Your task to perform on an android device: change the upload size in google photos Image 0: 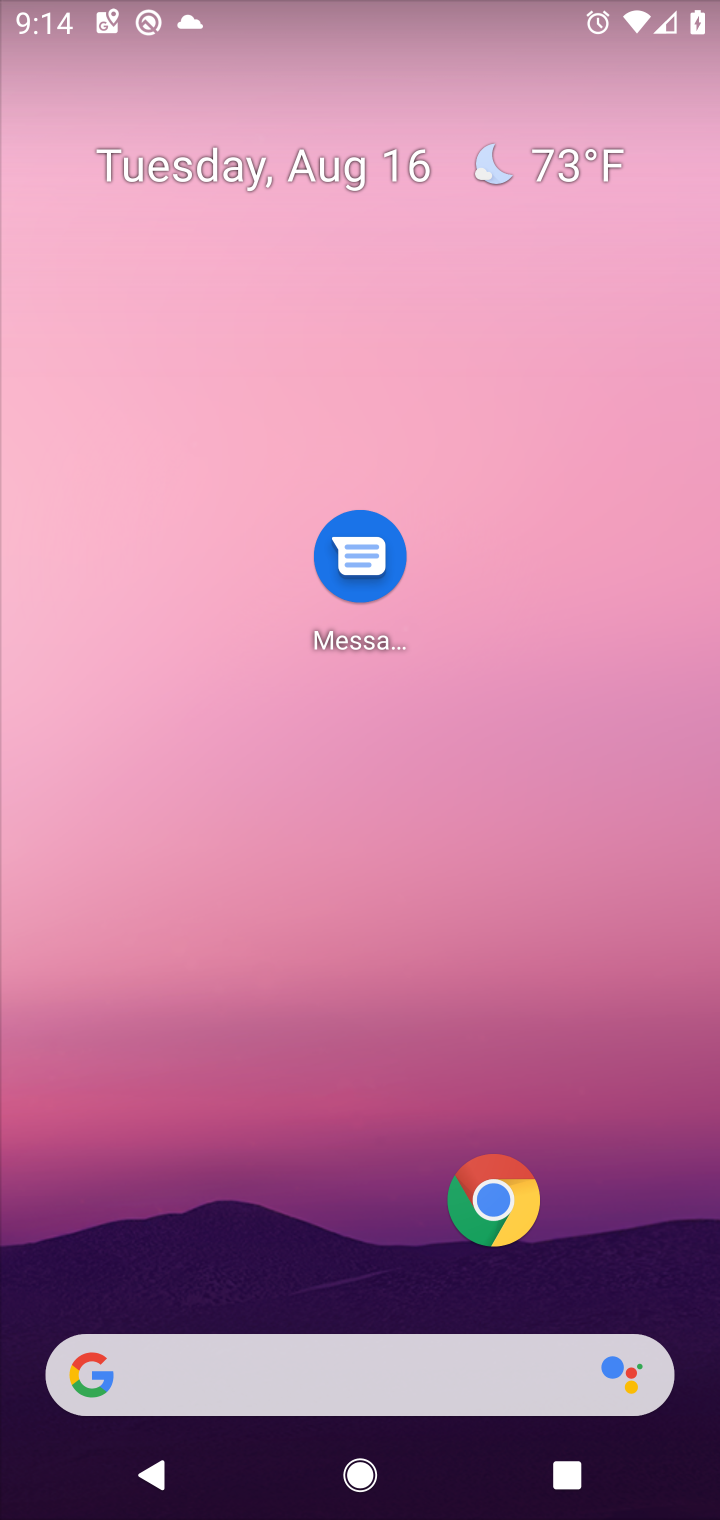
Step 0: drag from (31, 1462) to (241, 411)
Your task to perform on an android device: change the upload size in google photos Image 1: 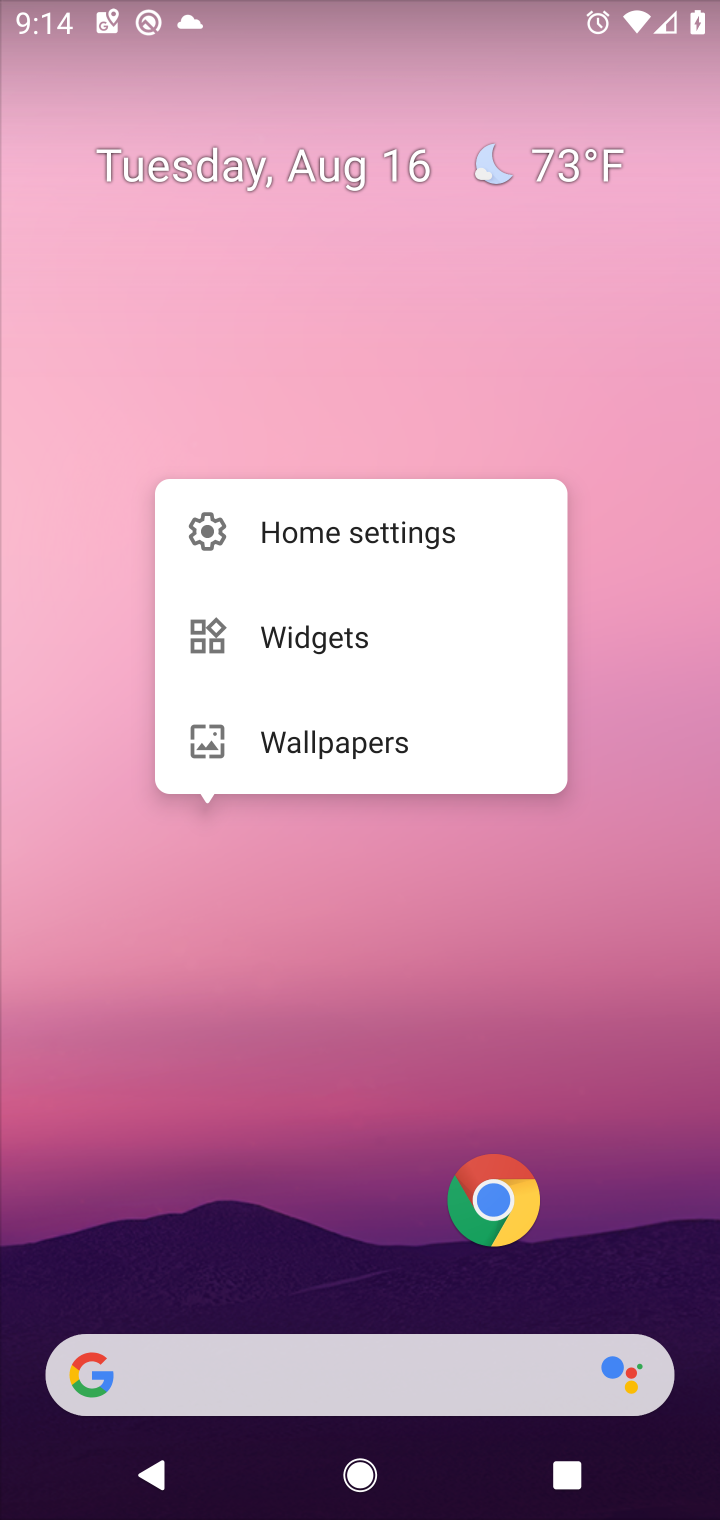
Step 1: click (70, 1127)
Your task to perform on an android device: change the upload size in google photos Image 2: 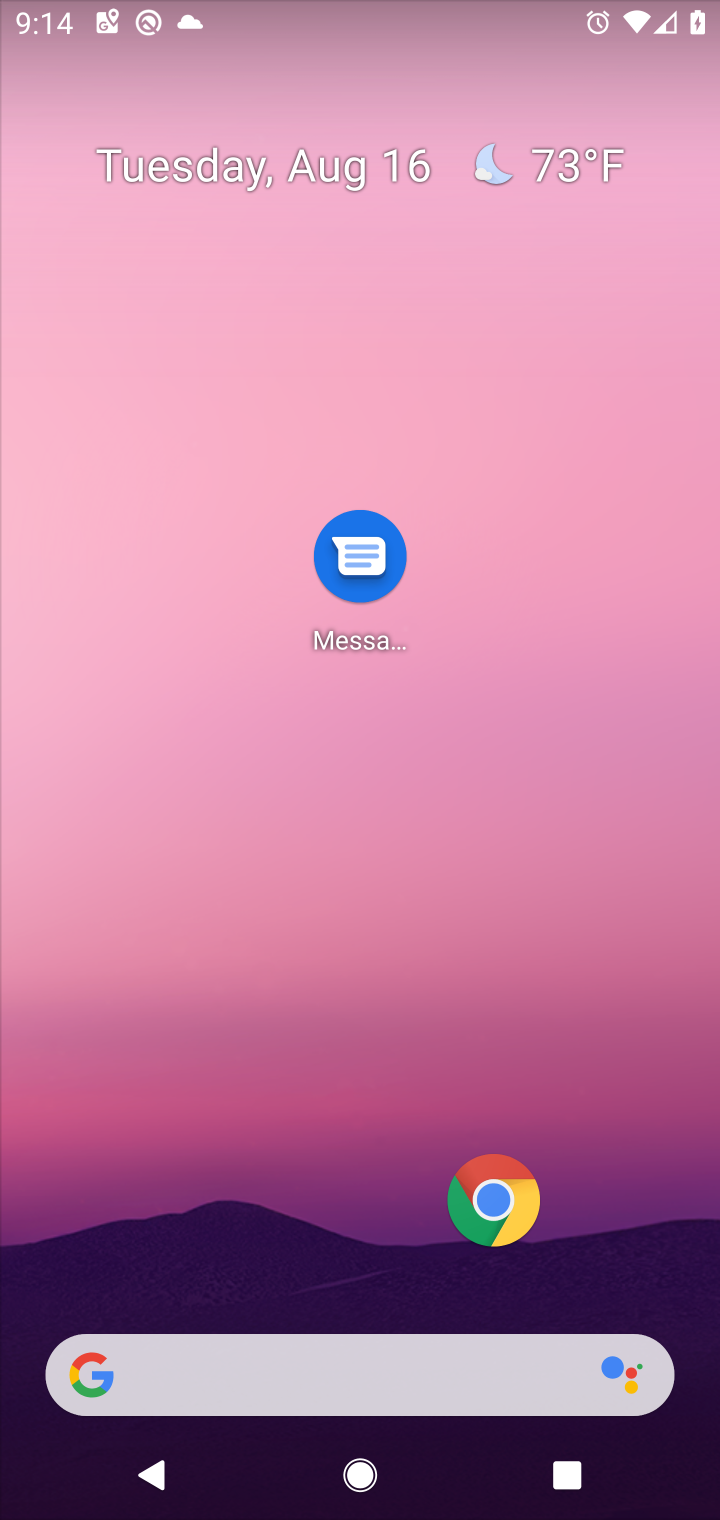
Step 2: drag from (51, 1467) to (396, 260)
Your task to perform on an android device: change the upload size in google photos Image 3: 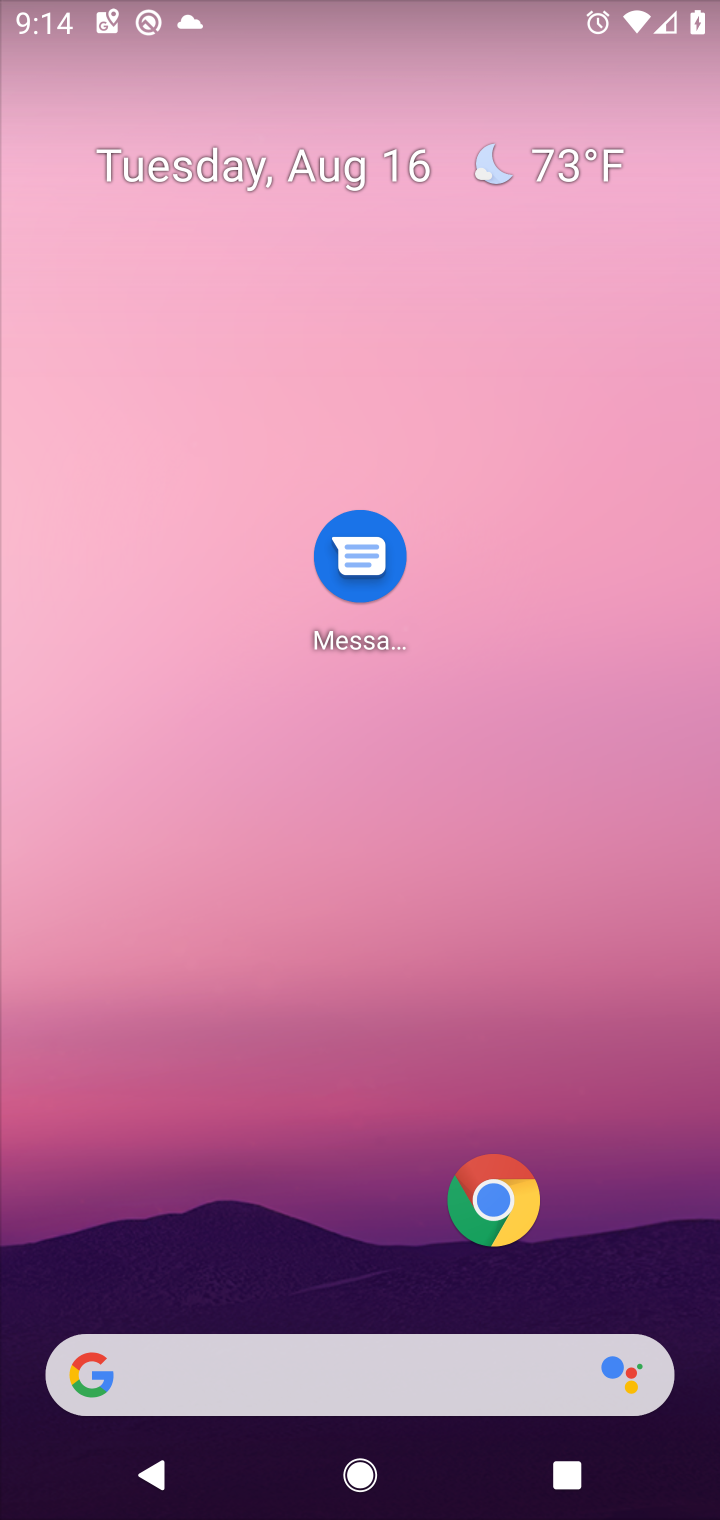
Step 3: drag from (61, 1449) to (355, 390)
Your task to perform on an android device: change the upload size in google photos Image 4: 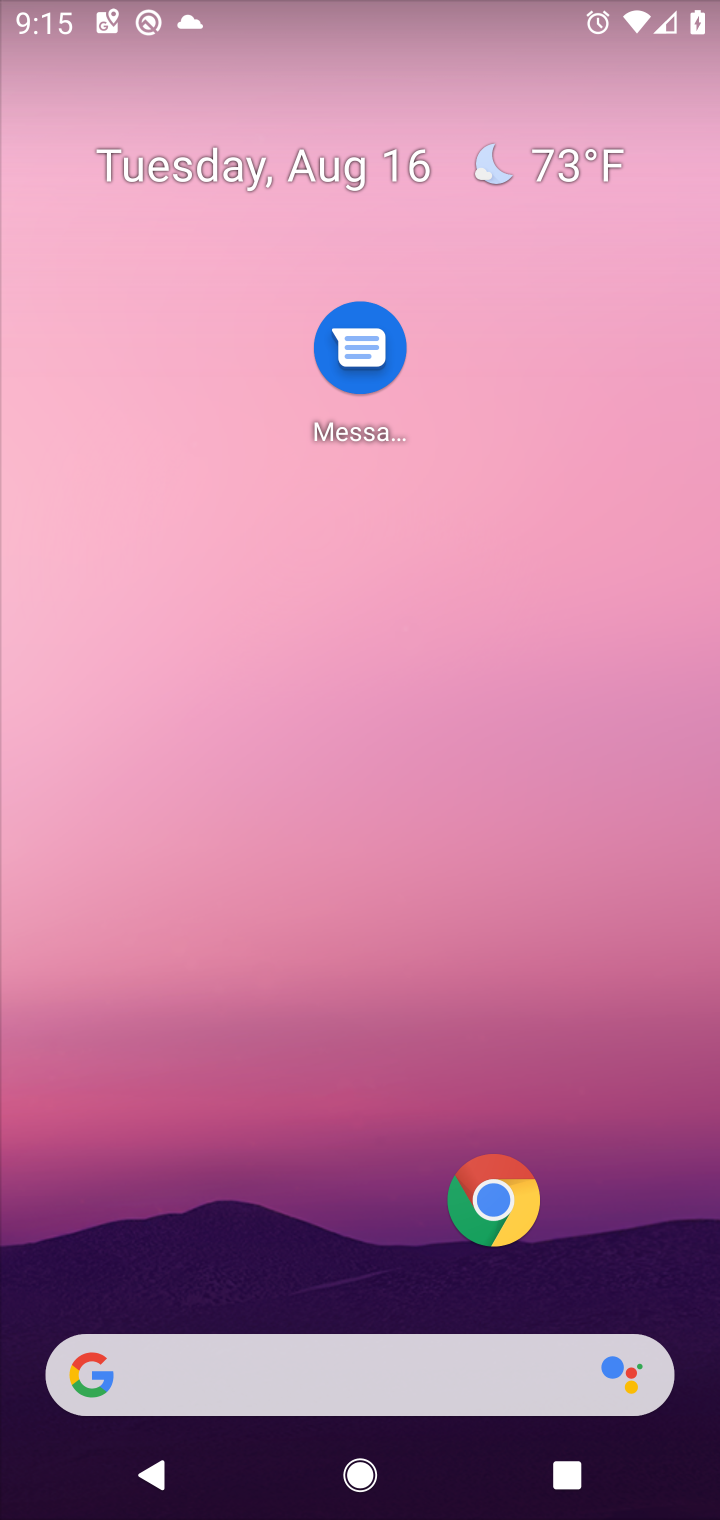
Step 4: drag from (68, 1425) to (225, 425)
Your task to perform on an android device: change the upload size in google photos Image 5: 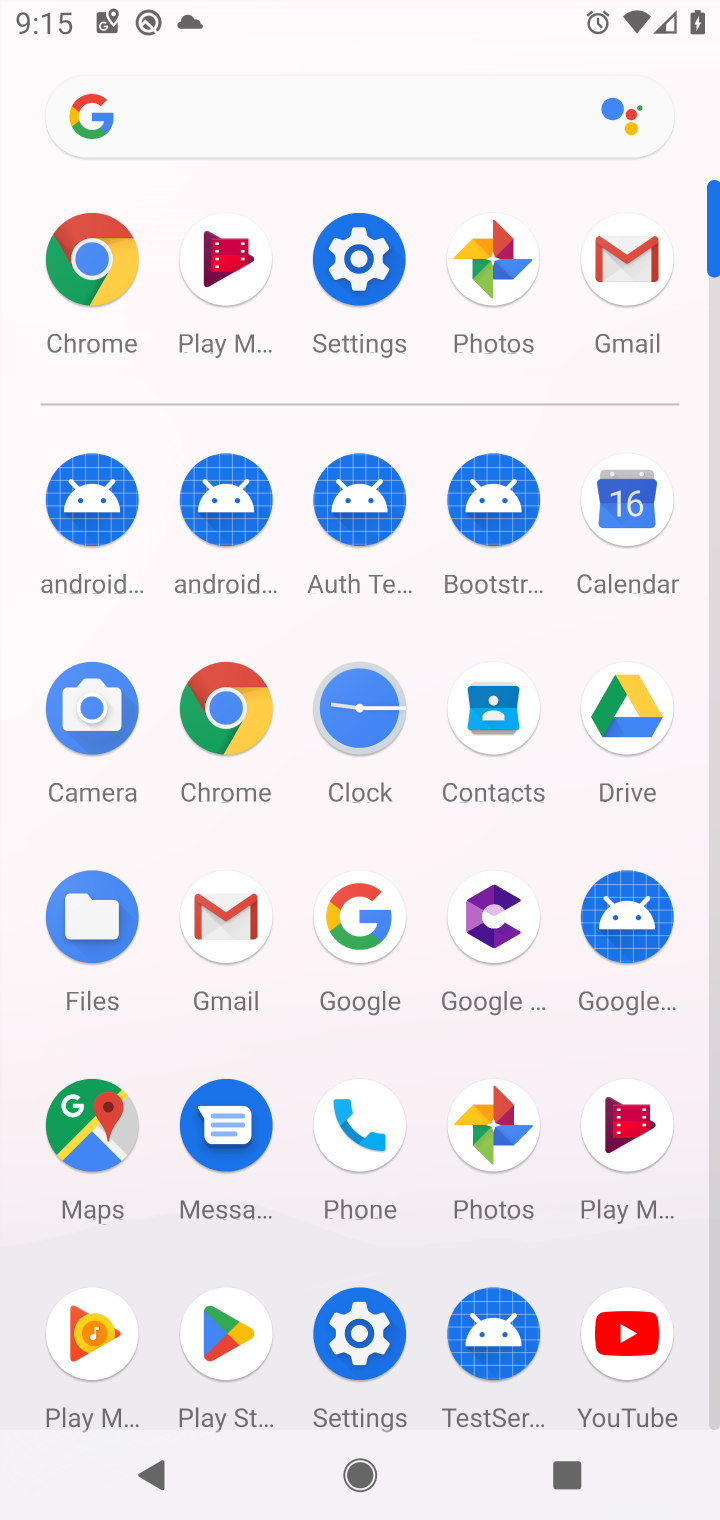
Step 5: click (468, 278)
Your task to perform on an android device: change the upload size in google photos Image 6: 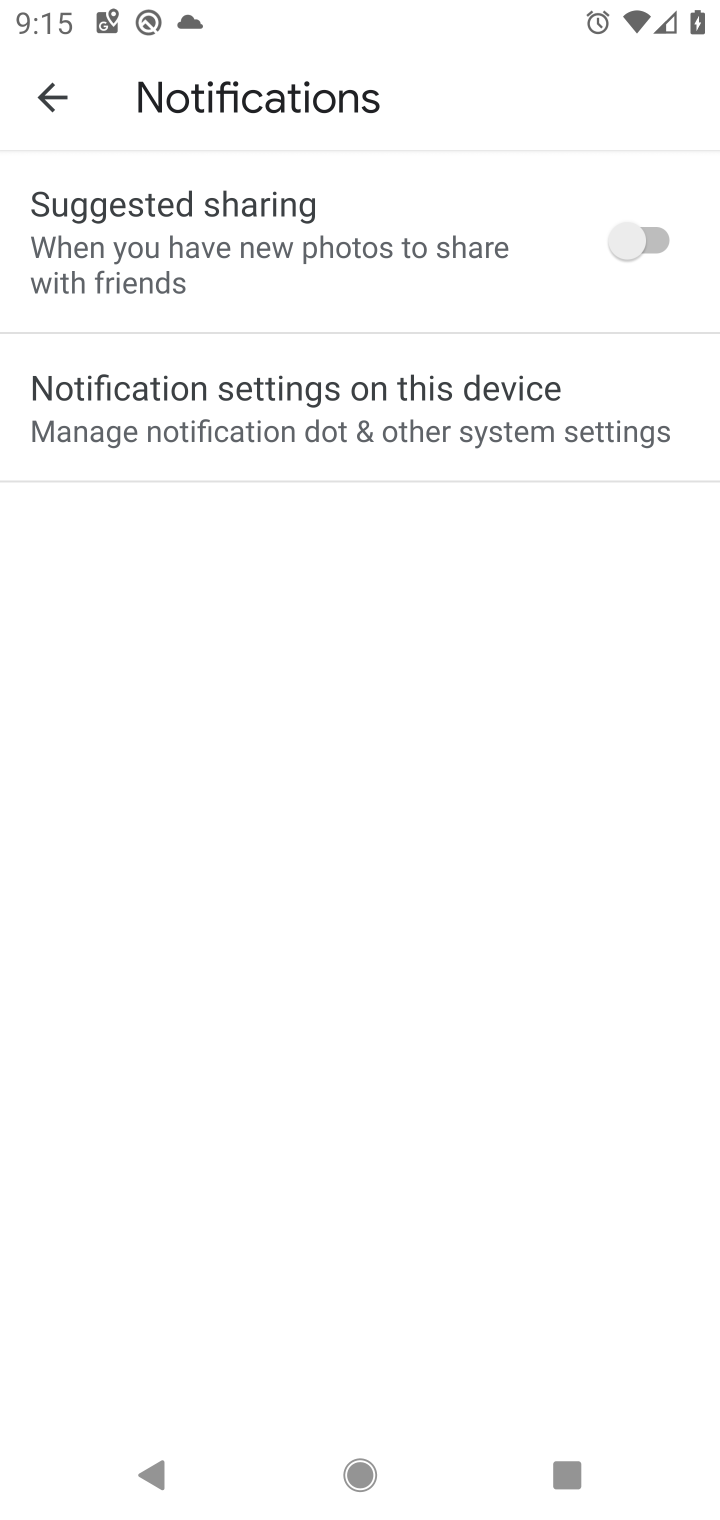
Step 6: click (53, 110)
Your task to perform on an android device: change the upload size in google photos Image 7: 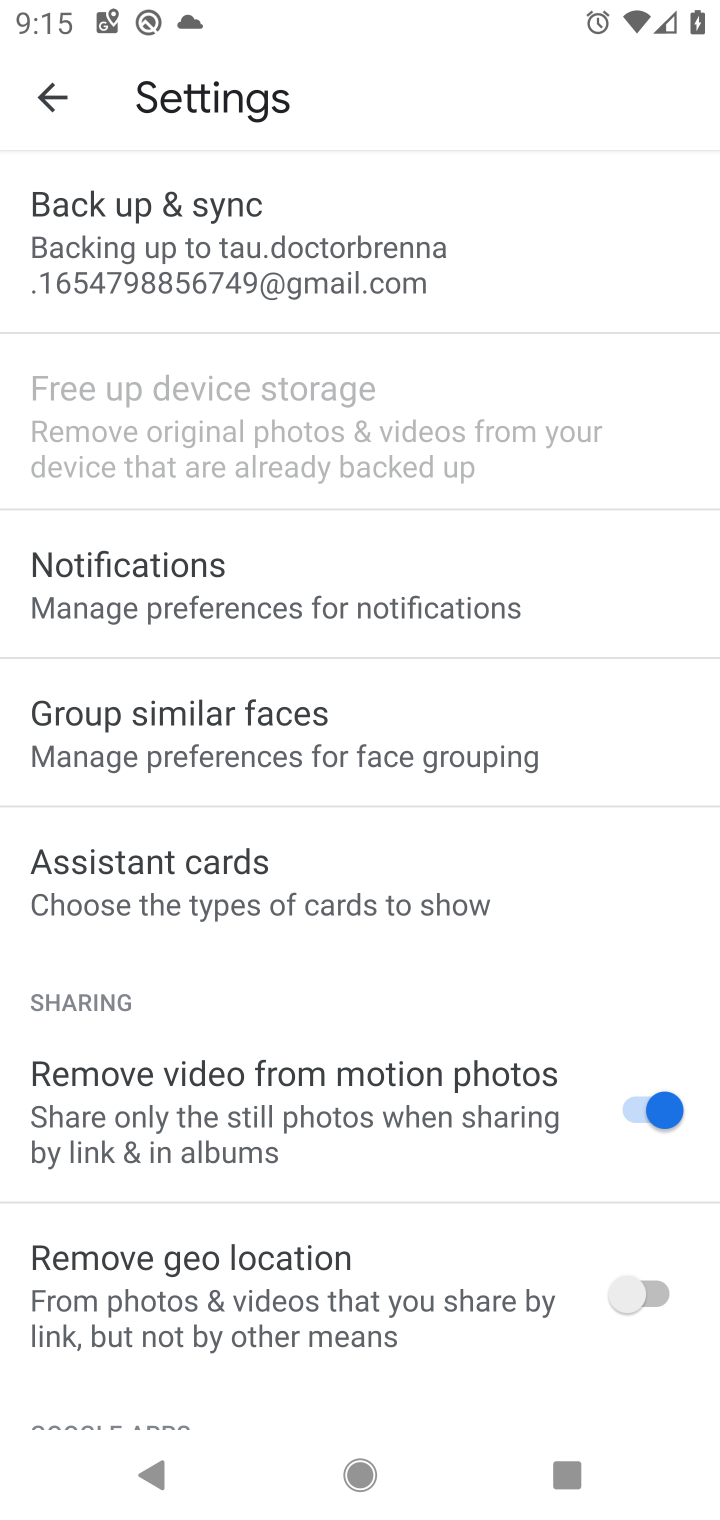
Step 7: click (204, 227)
Your task to perform on an android device: change the upload size in google photos Image 8: 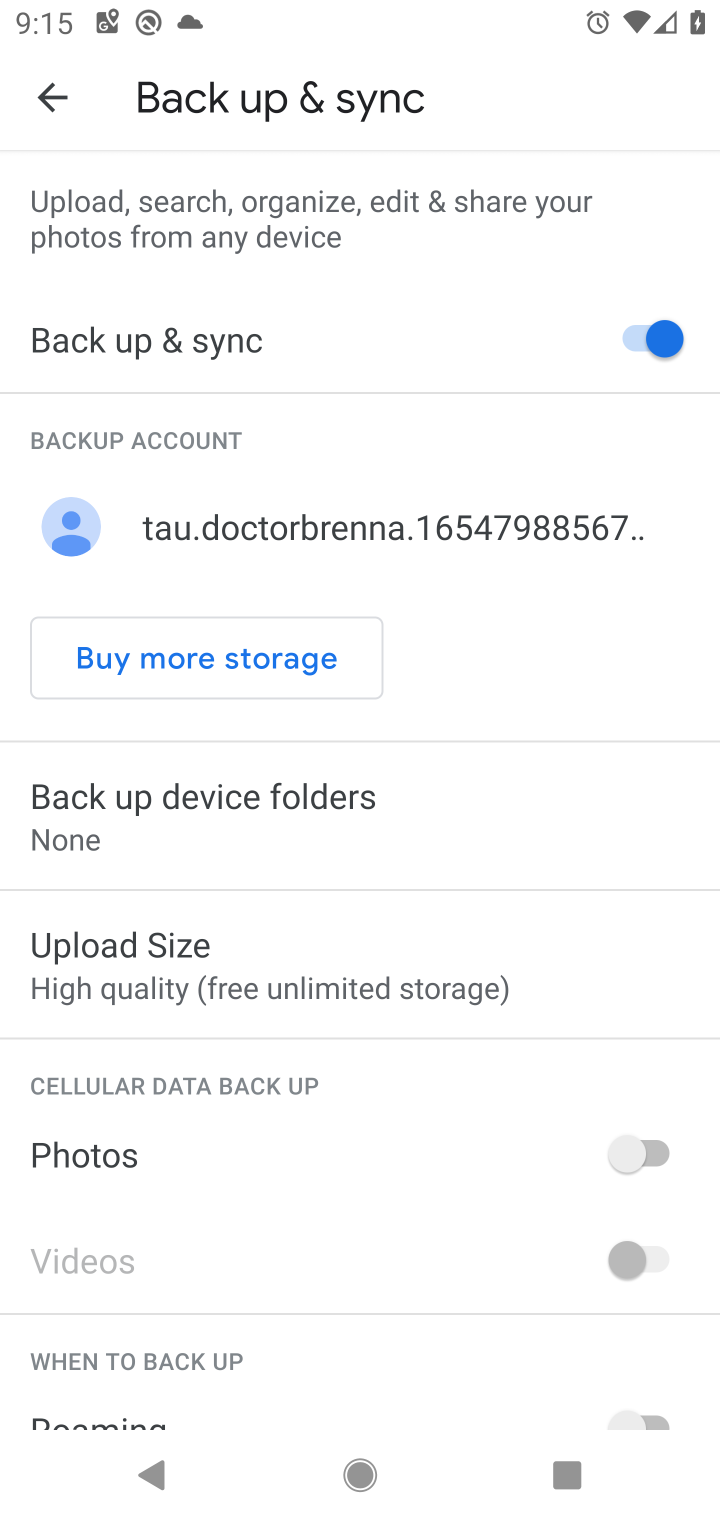
Step 8: click (163, 945)
Your task to perform on an android device: change the upload size in google photos Image 9: 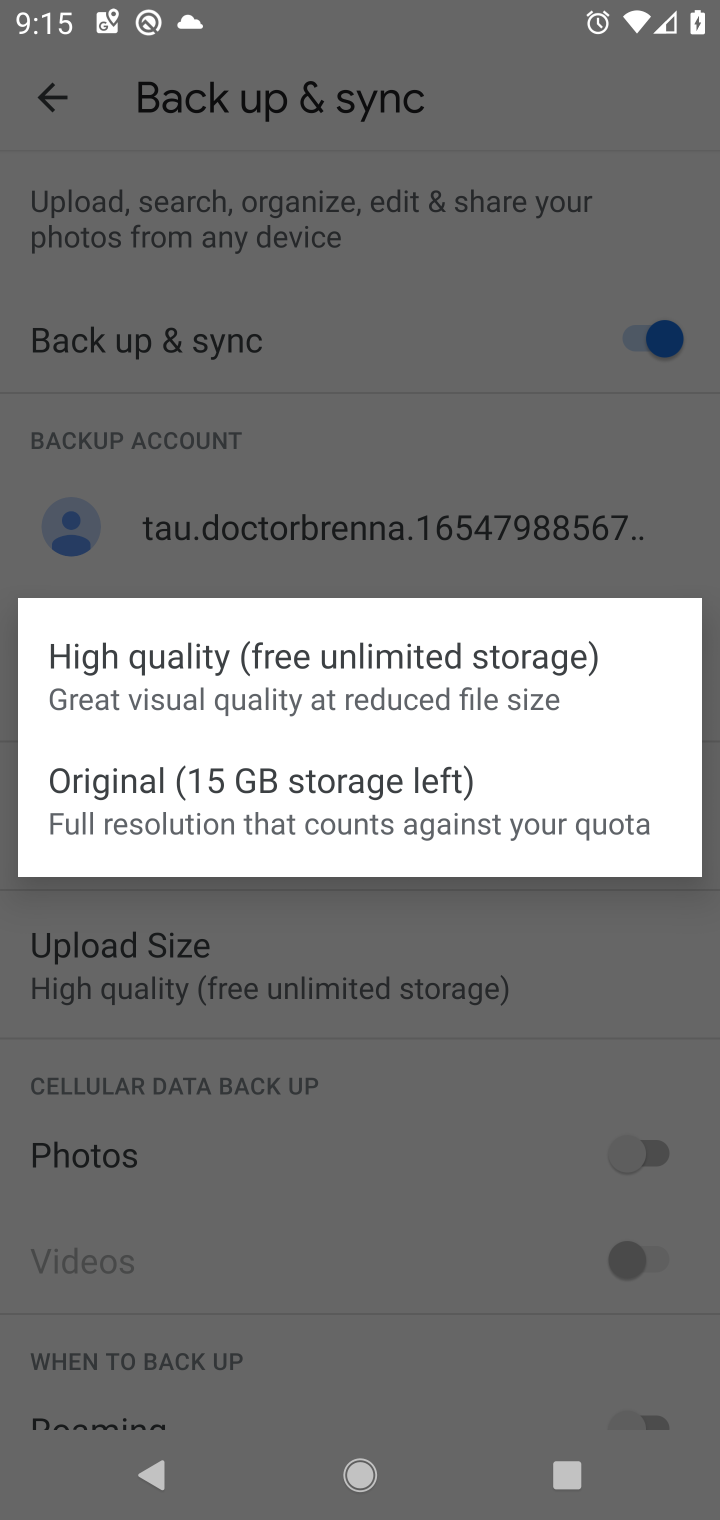
Step 9: click (191, 815)
Your task to perform on an android device: change the upload size in google photos Image 10: 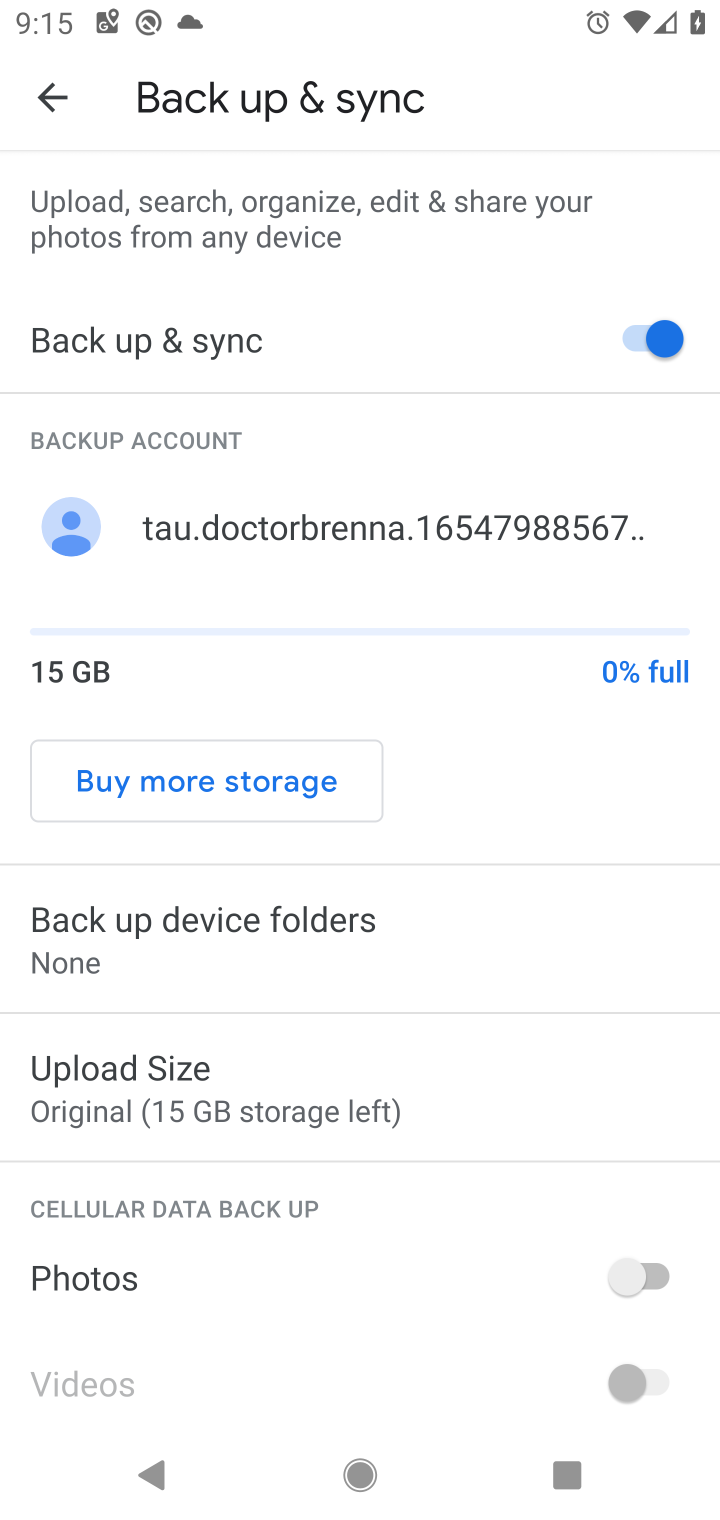
Step 10: task complete